Your task to perform on an android device: What is the news today? Image 0: 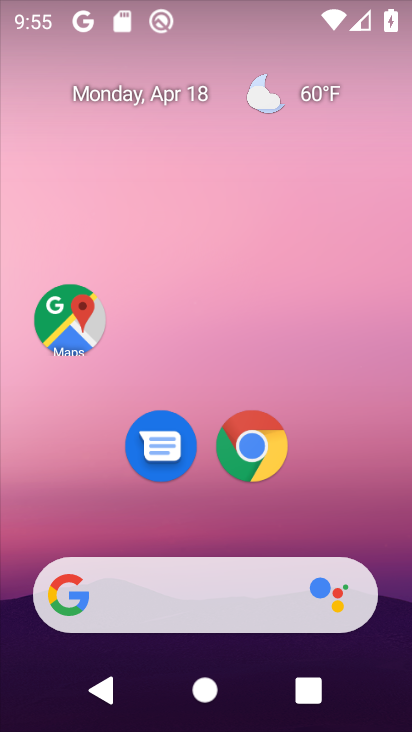
Step 0: drag from (0, 226) to (406, 315)
Your task to perform on an android device: What is the news today? Image 1: 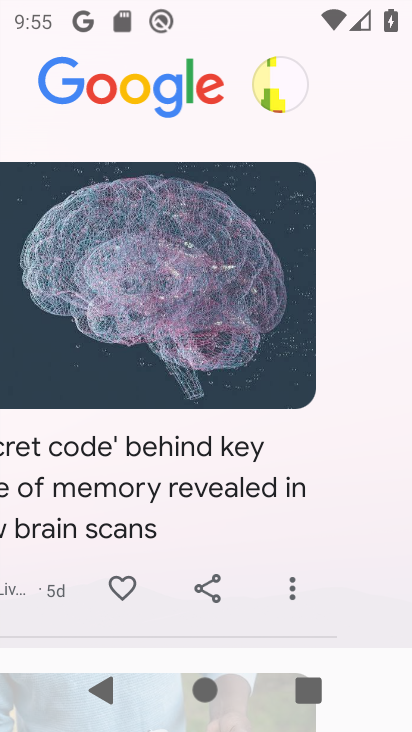
Step 1: task complete